Your task to perform on an android device: turn on wifi Image 0: 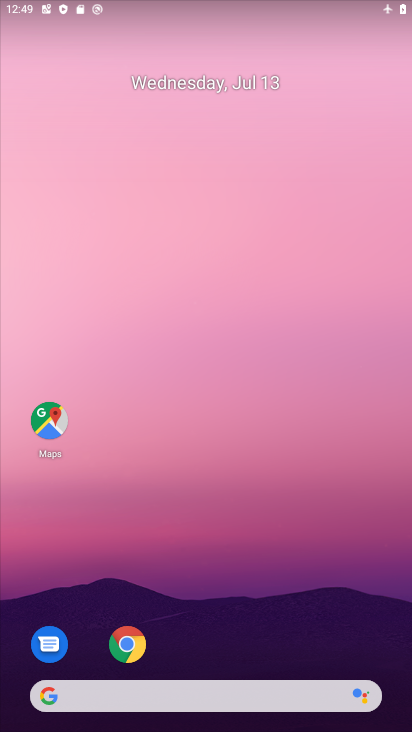
Step 0: drag from (334, 621) to (249, 105)
Your task to perform on an android device: turn on wifi Image 1: 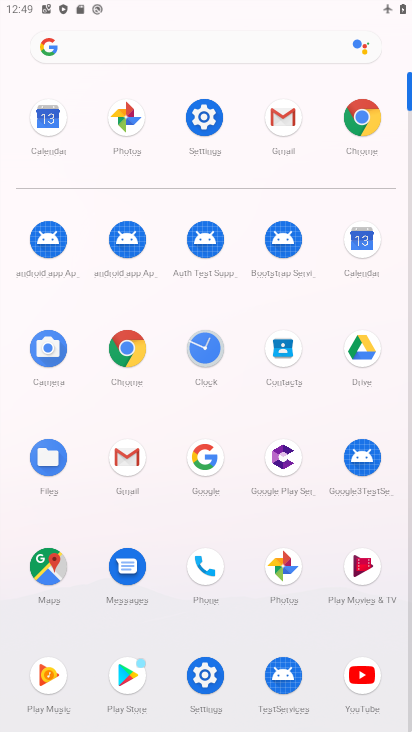
Step 1: click (201, 117)
Your task to perform on an android device: turn on wifi Image 2: 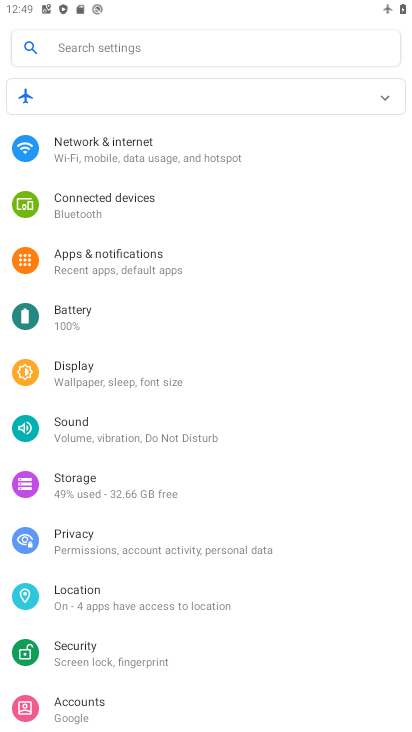
Step 2: click (145, 160)
Your task to perform on an android device: turn on wifi Image 3: 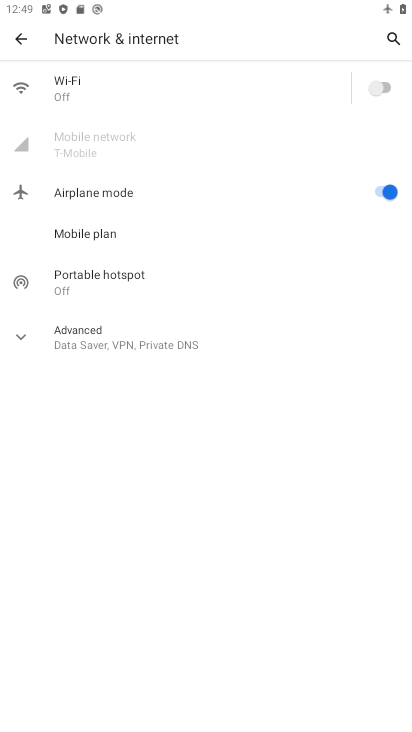
Step 3: click (383, 85)
Your task to perform on an android device: turn on wifi Image 4: 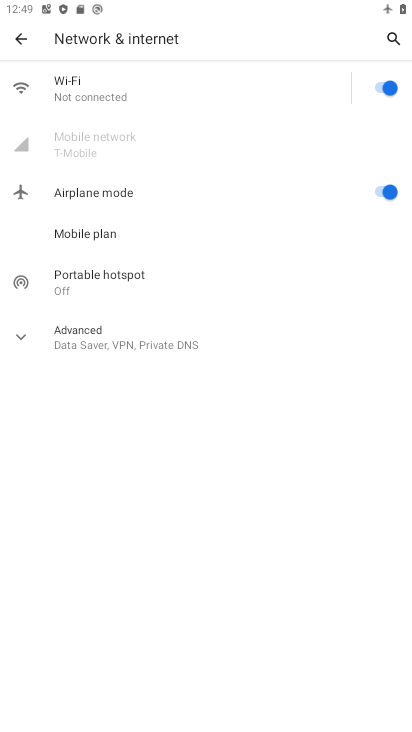
Step 4: task complete